Your task to perform on an android device: Do I have any events today? Image 0: 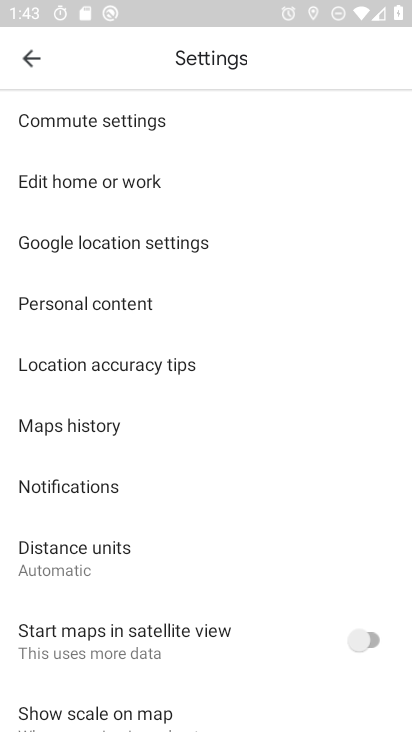
Step 0: press home button
Your task to perform on an android device: Do I have any events today? Image 1: 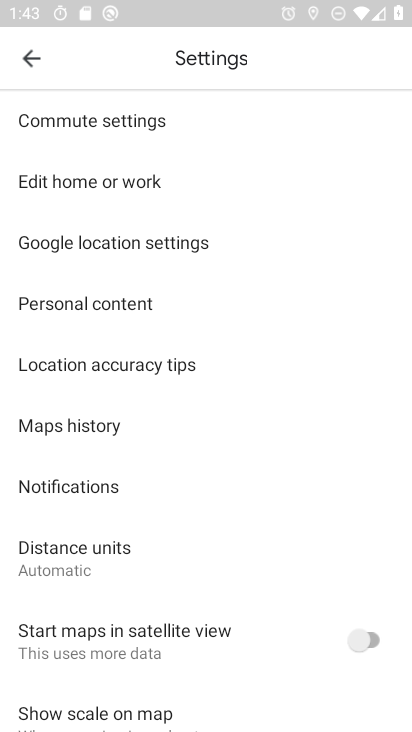
Step 1: press home button
Your task to perform on an android device: Do I have any events today? Image 2: 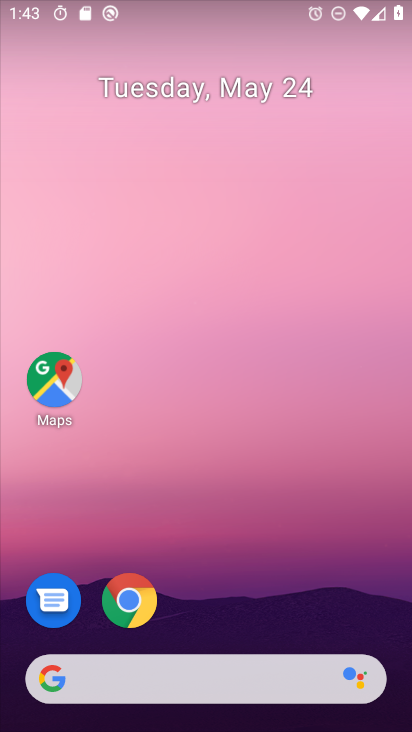
Step 2: drag from (254, 577) to (252, 160)
Your task to perform on an android device: Do I have any events today? Image 3: 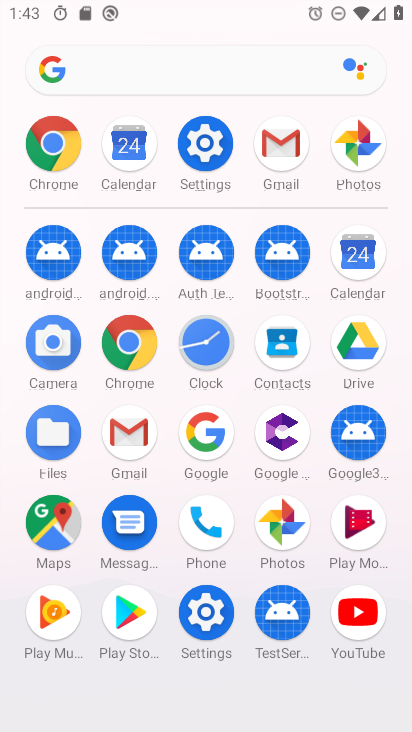
Step 3: click (133, 154)
Your task to perform on an android device: Do I have any events today? Image 4: 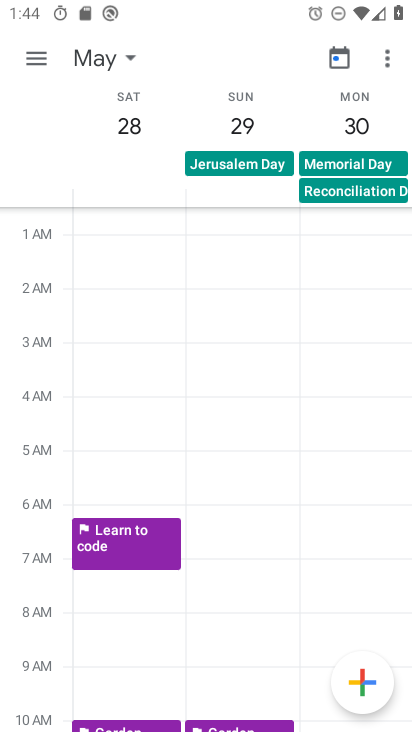
Step 4: click (115, 61)
Your task to perform on an android device: Do I have any events today? Image 5: 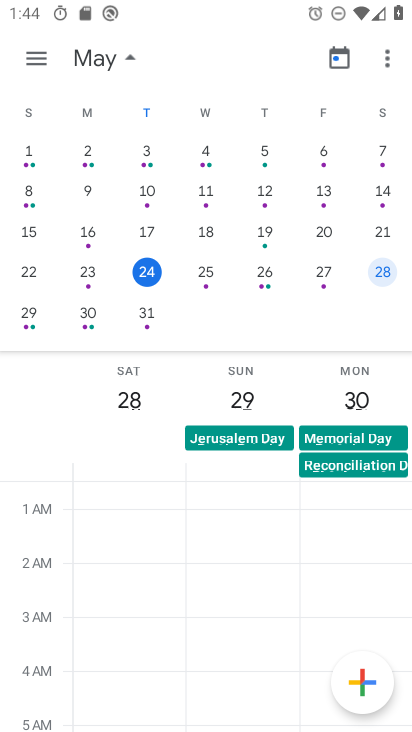
Step 5: click (142, 273)
Your task to perform on an android device: Do I have any events today? Image 6: 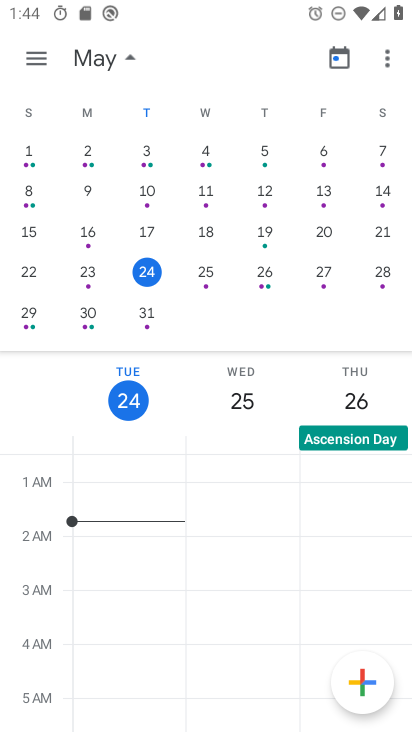
Step 6: task complete